Your task to perform on an android device: Open Google Image 0: 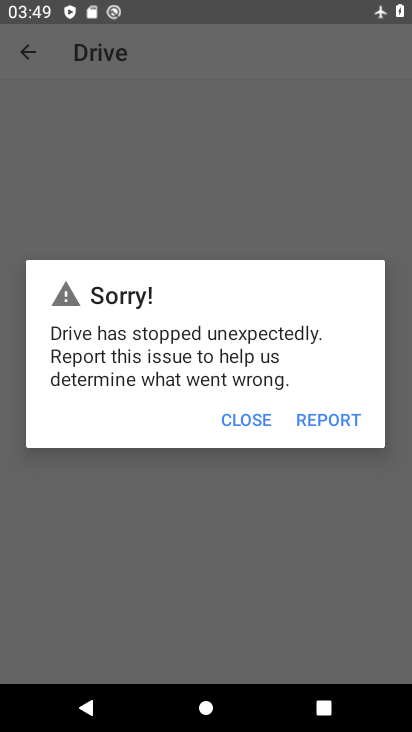
Step 0: press home button
Your task to perform on an android device: Open Google Image 1: 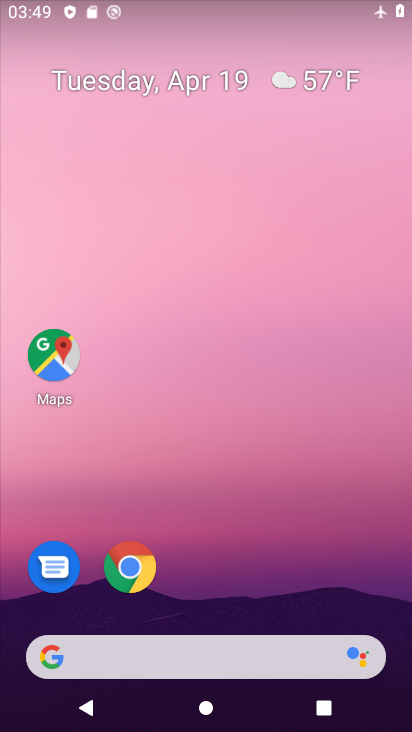
Step 1: drag from (359, 590) to (353, 142)
Your task to perform on an android device: Open Google Image 2: 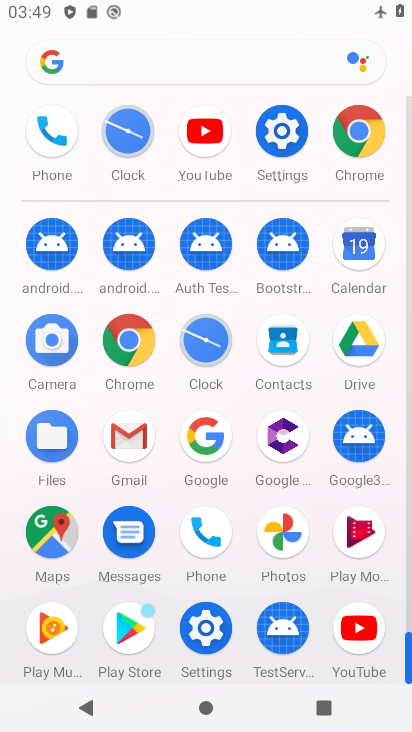
Step 2: click (207, 447)
Your task to perform on an android device: Open Google Image 3: 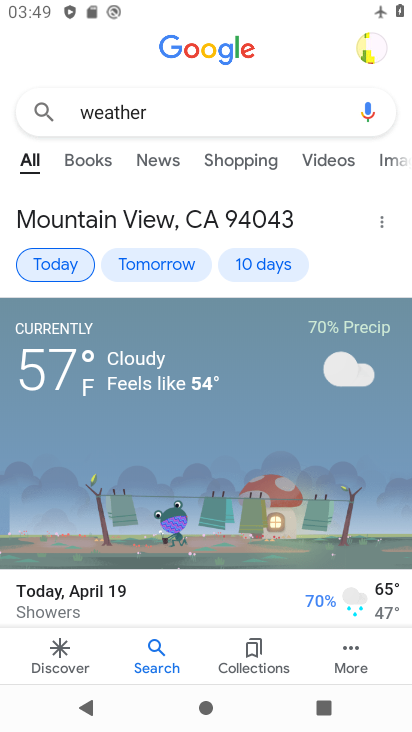
Step 3: task complete